Your task to perform on an android device: Open the calendar app, open the side menu, and click the "Day" option Image 0: 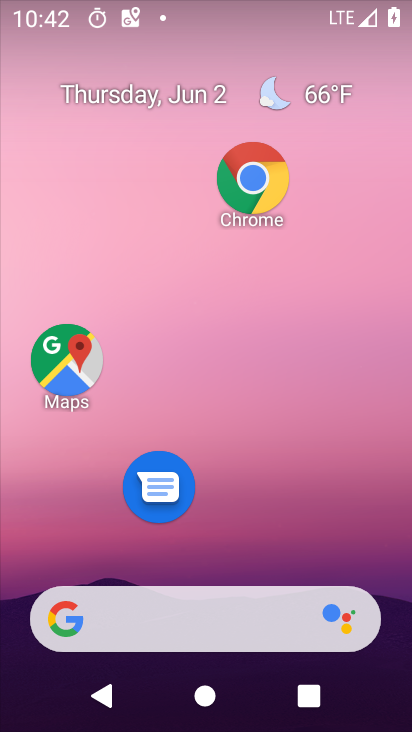
Step 0: drag from (241, 722) to (214, 104)
Your task to perform on an android device: Open the calendar app, open the side menu, and click the "Day" option Image 1: 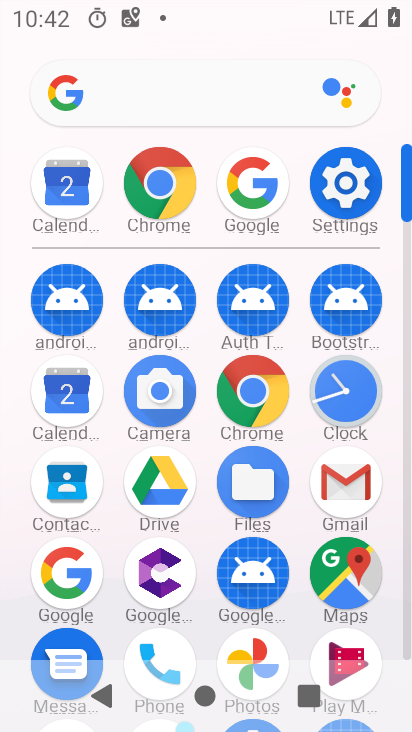
Step 1: click (74, 396)
Your task to perform on an android device: Open the calendar app, open the side menu, and click the "Day" option Image 2: 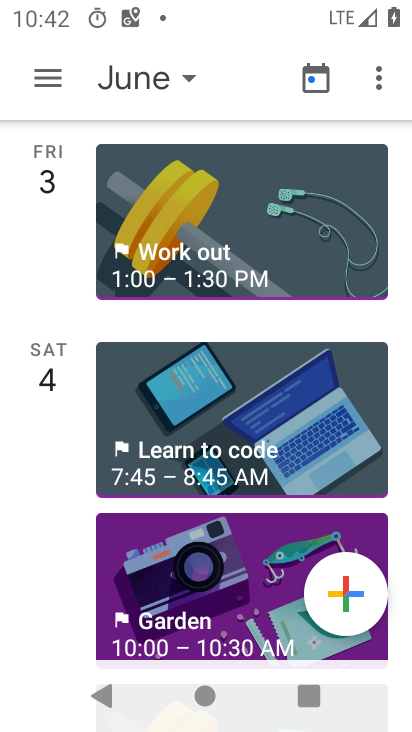
Step 2: click (54, 78)
Your task to perform on an android device: Open the calendar app, open the side menu, and click the "Day" option Image 3: 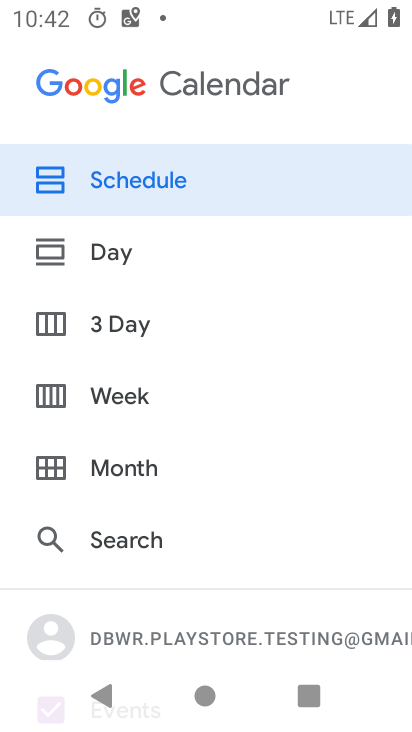
Step 3: click (115, 252)
Your task to perform on an android device: Open the calendar app, open the side menu, and click the "Day" option Image 4: 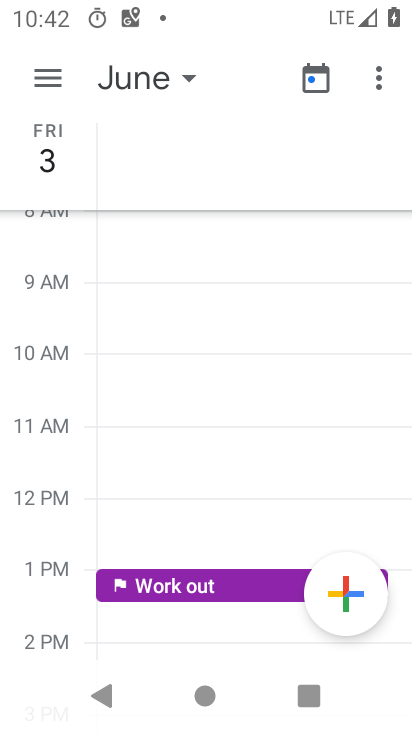
Step 4: task complete